Your task to perform on an android device: open chrome privacy settings Image 0: 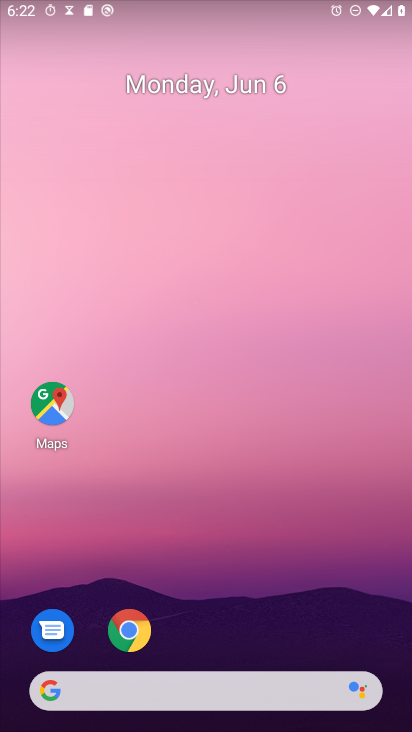
Step 0: click (121, 630)
Your task to perform on an android device: open chrome privacy settings Image 1: 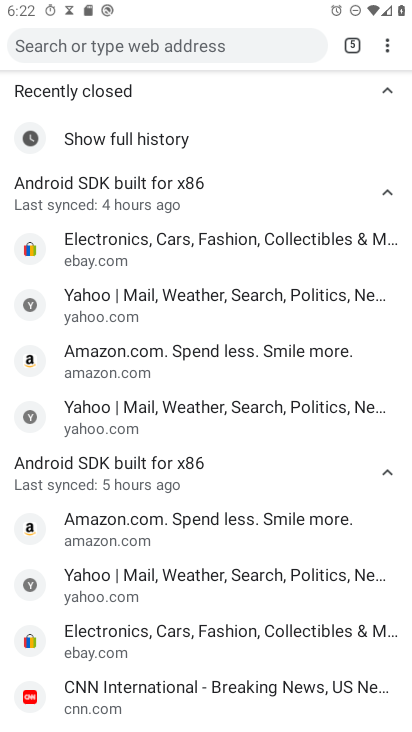
Step 1: click (377, 52)
Your task to perform on an android device: open chrome privacy settings Image 2: 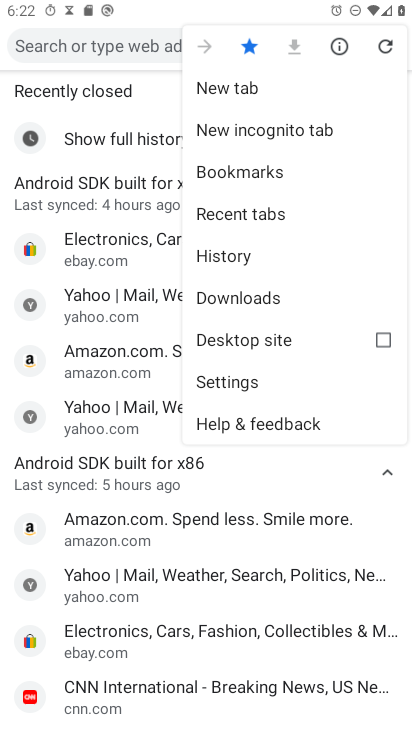
Step 2: click (261, 382)
Your task to perform on an android device: open chrome privacy settings Image 3: 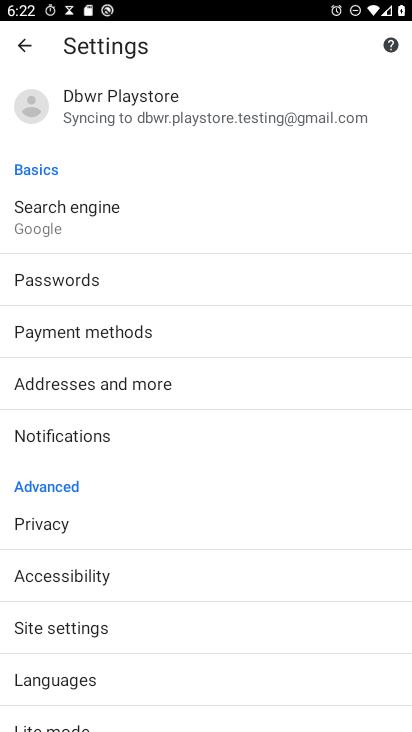
Step 3: click (128, 526)
Your task to perform on an android device: open chrome privacy settings Image 4: 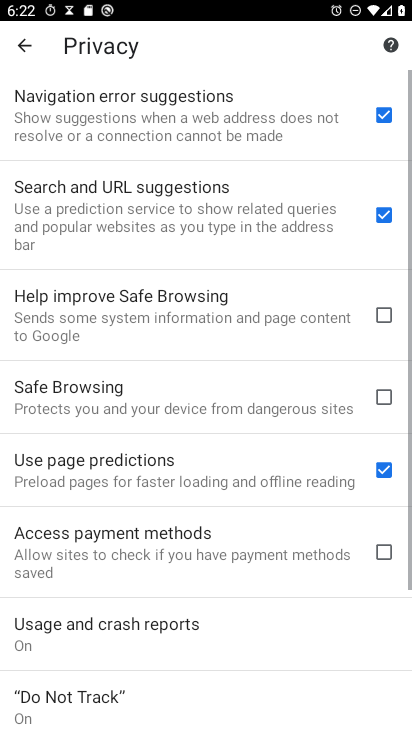
Step 4: task complete